Your task to perform on an android device: Open Google Maps Image 0: 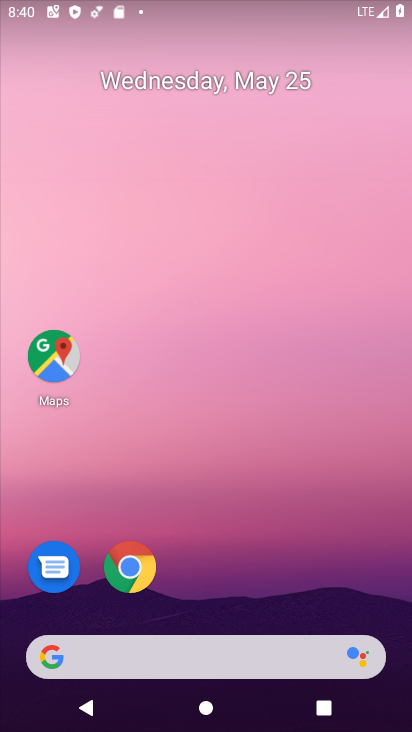
Step 0: click (51, 360)
Your task to perform on an android device: Open Google Maps Image 1: 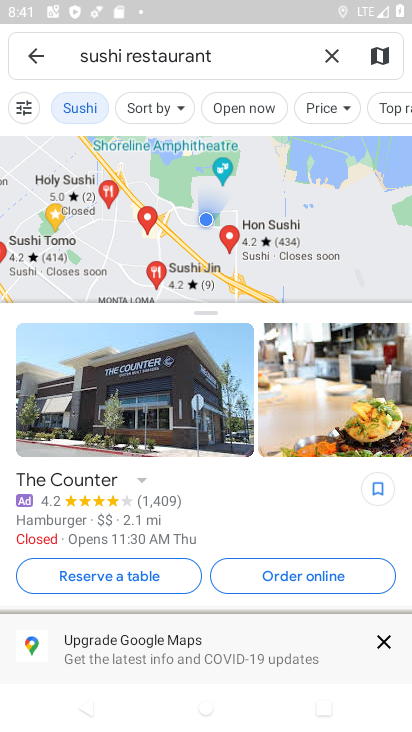
Step 1: click (331, 53)
Your task to perform on an android device: Open Google Maps Image 2: 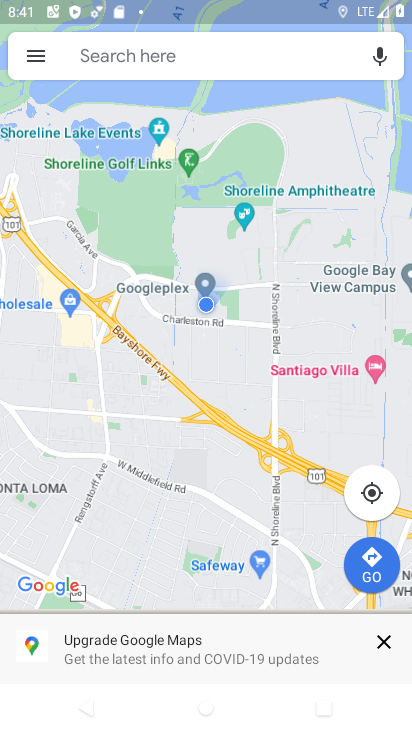
Step 2: task complete